Your task to perform on an android device: visit the assistant section in the google photos Image 0: 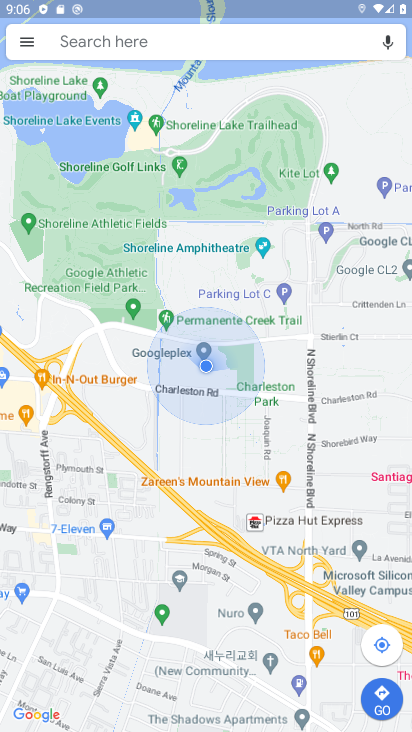
Step 0: press home button
Your task to perform on an android device: visit the assistant section in the google photos Image 1: 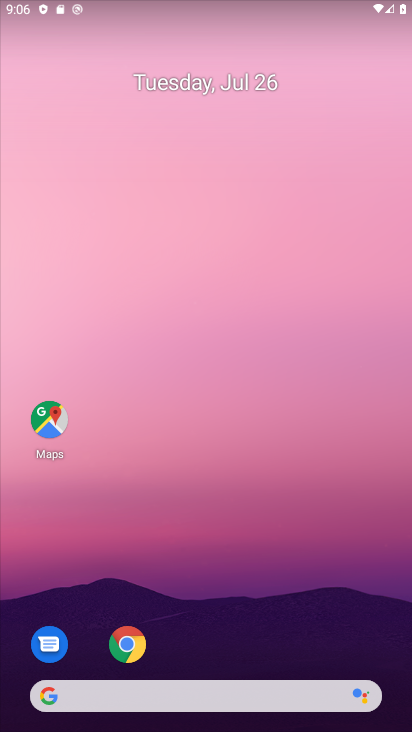
Step 1: drag from (263, 595) to (310, 204)
Your task to perform on an android device: visit the assistant section in the google photos Image 2: 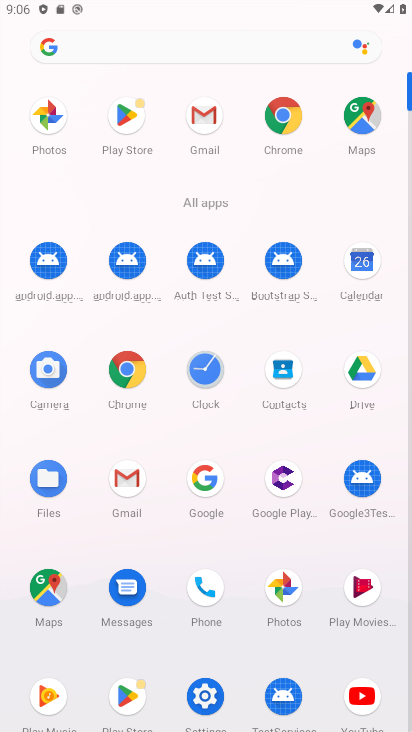
Step 2: click (287, 595)
Your task to perform on an android device: visit the assistant section in the google photos Image 3: 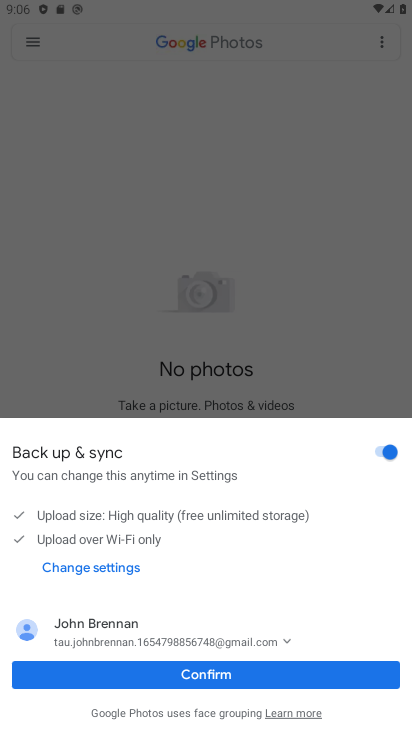
Step 3: click (222, 677)
Your task to perform on an android device: visit the assistant section in the google photos Image 4: 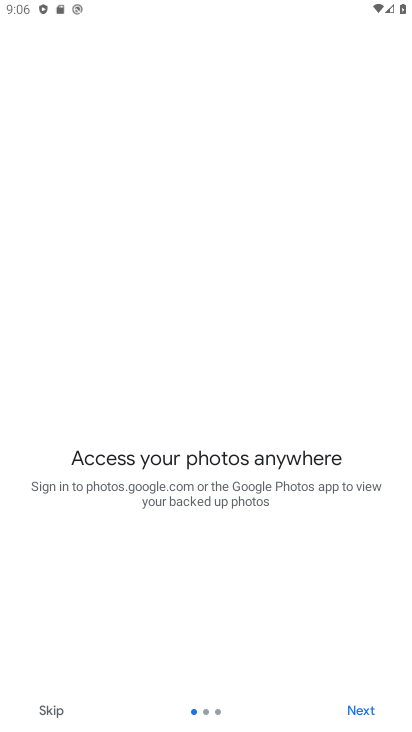
Step 4: click (62, 715)
Your task to perform on an android device: visit the assistant section in the google photos Image 5: 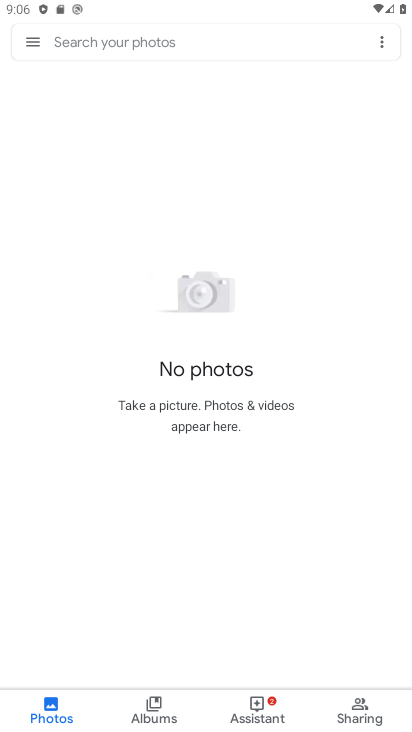
Step 5: click (248, 702)
Your task to perform on an android device: visit the assistant section in the google photos Image 6: 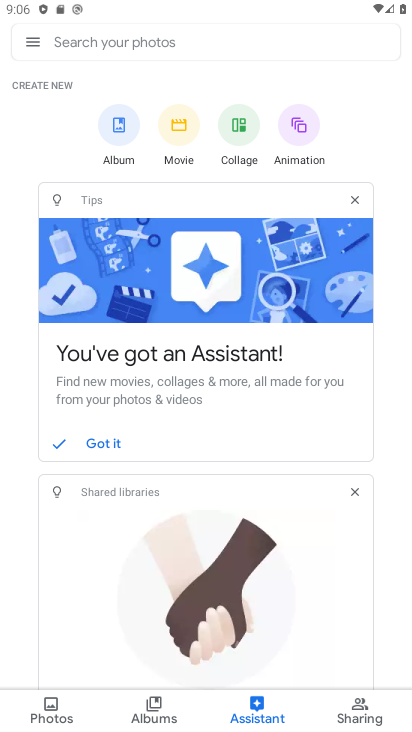
Step 6: task complete